Your task to perform on an android device: Go to wifi settings Image 0: 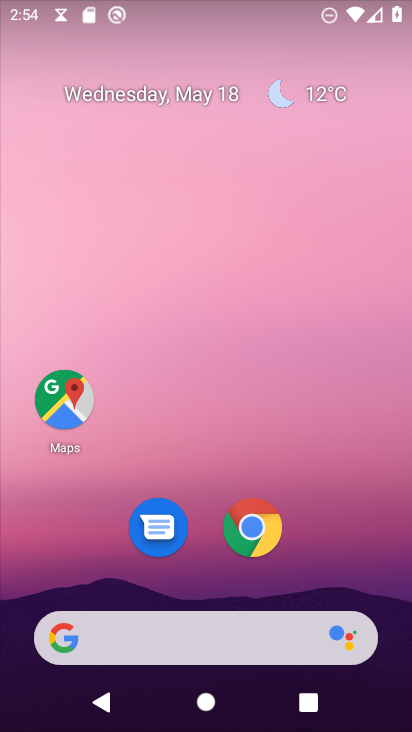
Step 0: drag from (333, 568) to (210, 59)
Your task to perform on an android device: Go to wifi settings Image 1: 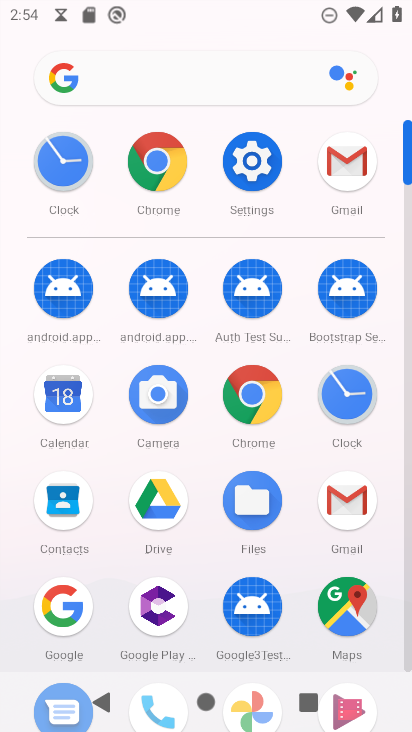
Step 1: click (259, 182)
Your task to perform on an android device: Go to wifi settings Image 2: 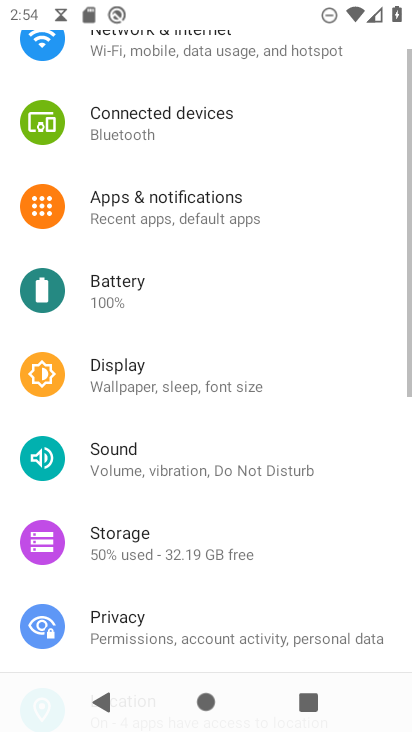
Step 2: drag from (267, 164) to (223, 545)
Your task to perform on an android device: Go to wifi settings Image 3: 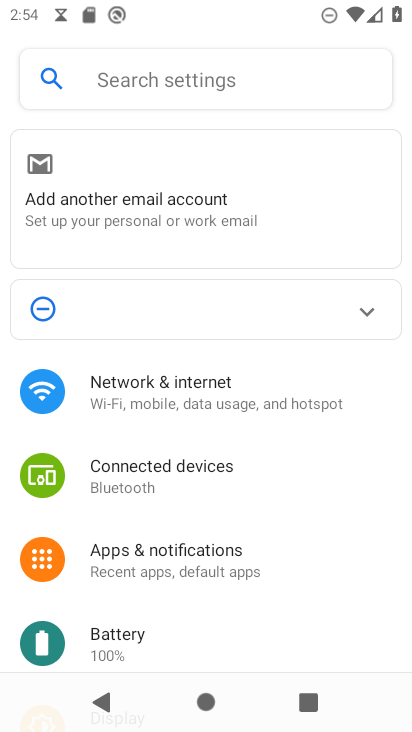
Step 3: click (193, 374)
Your task to perform on an android device: Go to wifi settings Image 4: 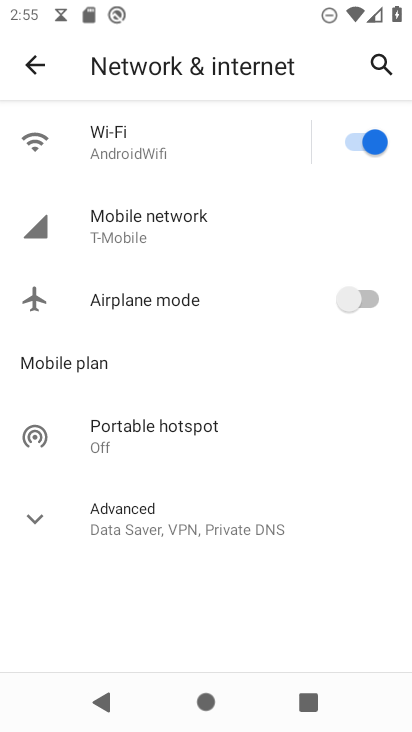
Step 4: click (210, 154)
Your task to perform on an android device: Go to wifi settings Image 5: 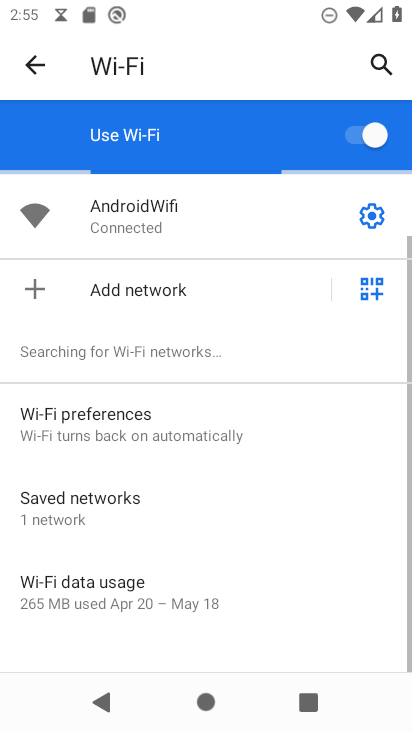
Step 5: task complete